Your task to perform on an android device: Open notification settings Image 0: 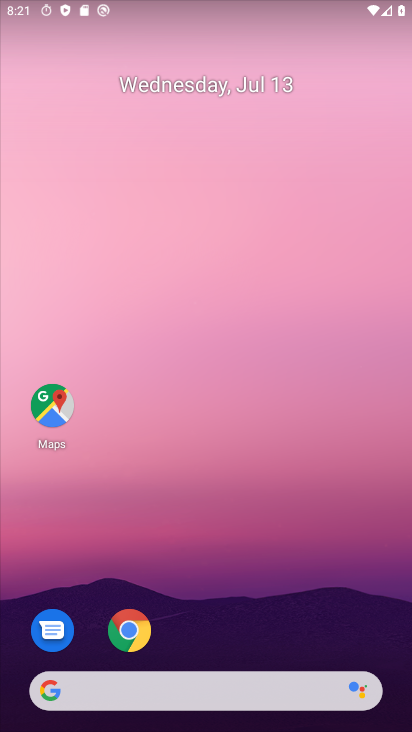
Step 0: drag from (230, 519) to (305, 158)
Your task to perform on an android device: Open notification settings Image 1: 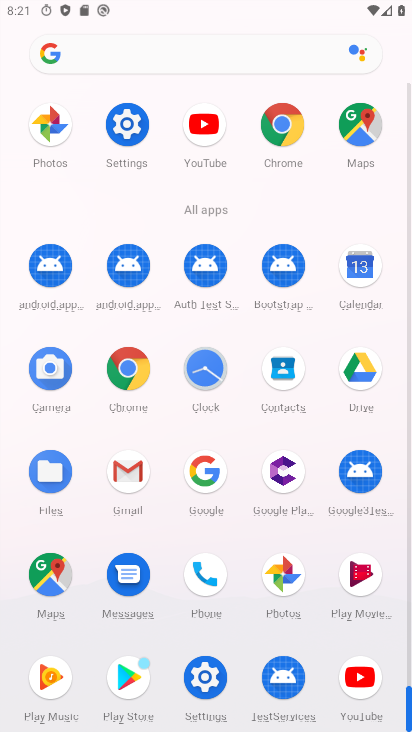
Step 1: click (213, 672)
Your task to perform on an android device: Open notification settings Image 2: 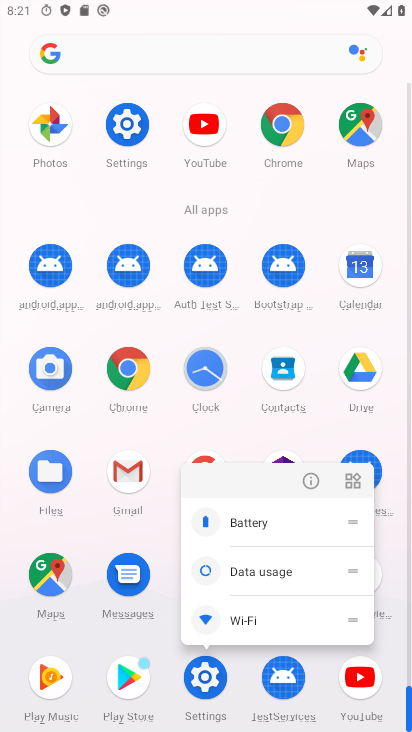
Step 2: click (307, 480)
Your task to perform on an android device: Open notification settings Image 3: 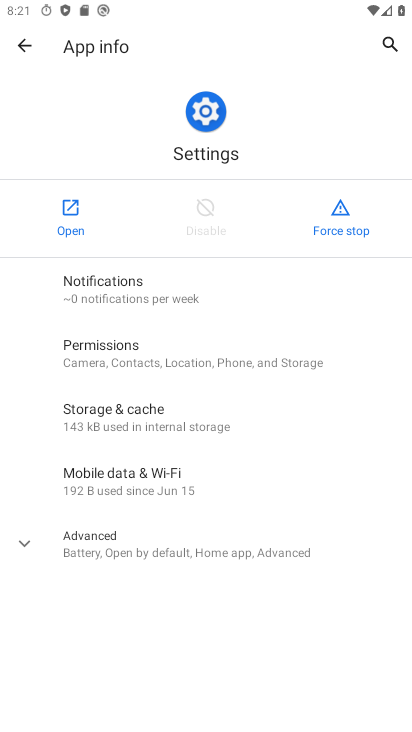
Step 3: click (122, 289)
Your task to perform on an android device: Open notification settings Image 4: 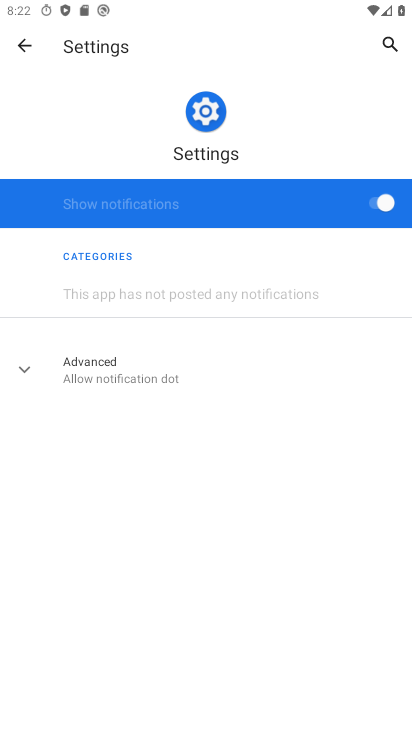
Step 4: task complete